Your task to perform on an android device: snooze an email in the gmail app Image 0: 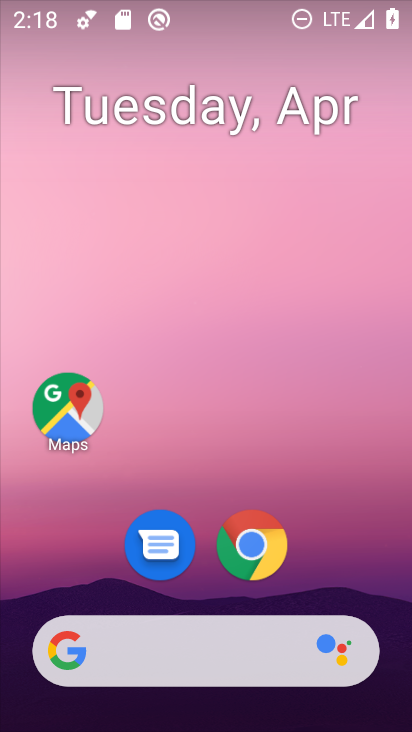
Step 0: drag from (374, 580) to (354, 141)
Your task to perform on an android device: snooze an email in the gmail app Image 1: 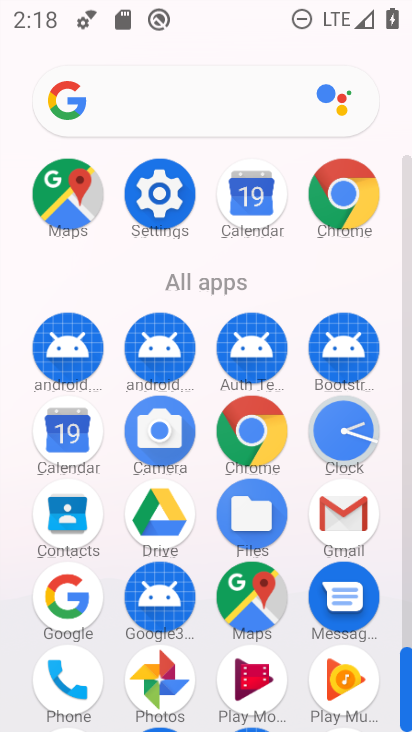
Step 1: click (369, 511)
Your task to perform on an android device: snooze an email in the gmail app Image 2: 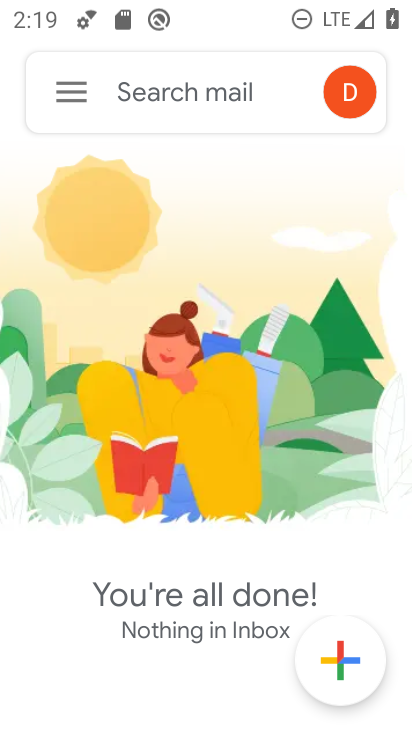
Step 2: click (75, 97)
Your task to perform on an android device: snooze an email in the gmail app Image 3: 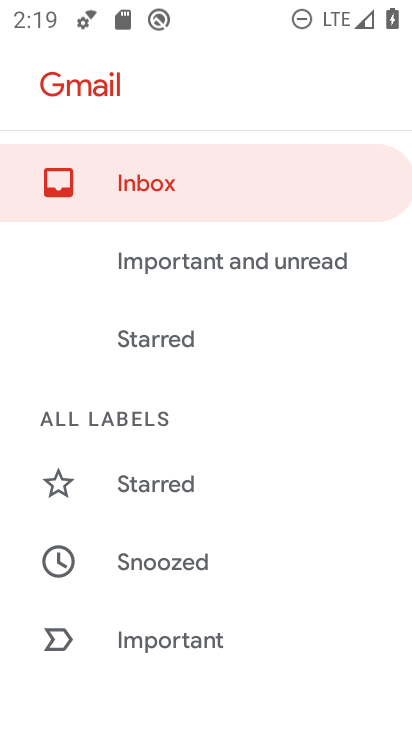
Step 3: drag from (226, 579) to (281, 71)
Your task to perform on an android device: snooze an email in the gmail app Image 4: 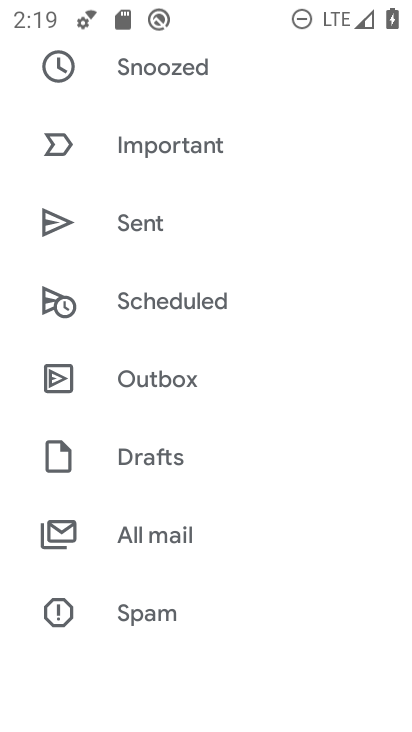
Step 4: click (294, 557)
Your task to perform on an android device: snooze an email in the gmail app Image 5: 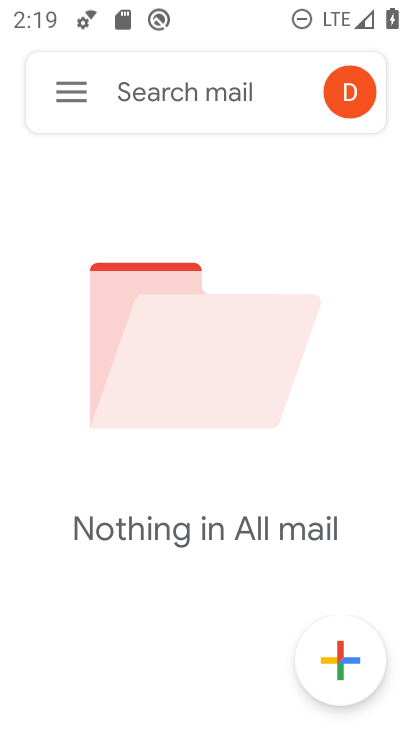
Step 5: task complete